Your task to perform on an android device: What's the weather today? Image 0: 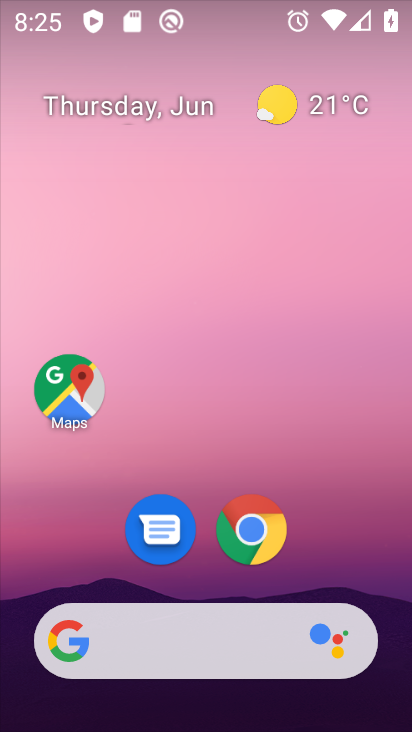
Step 0: click (314, 107)
Your task to perform on an android device: What's the weather today? Image 1: 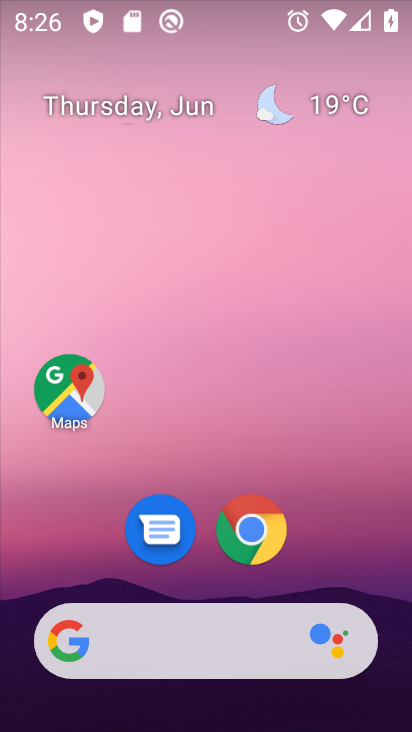
Step 1: drag from (1, 243) to (358, 285)
Your task to perform on an android device: What's the weather today? Image 2: 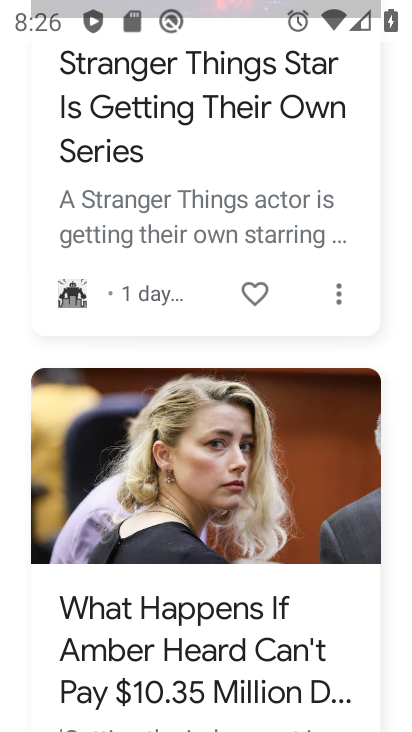
Step 2: drag from (302, 95) to (351, 680)
Your task to perform on an android device: What's the weather today? Image 3: 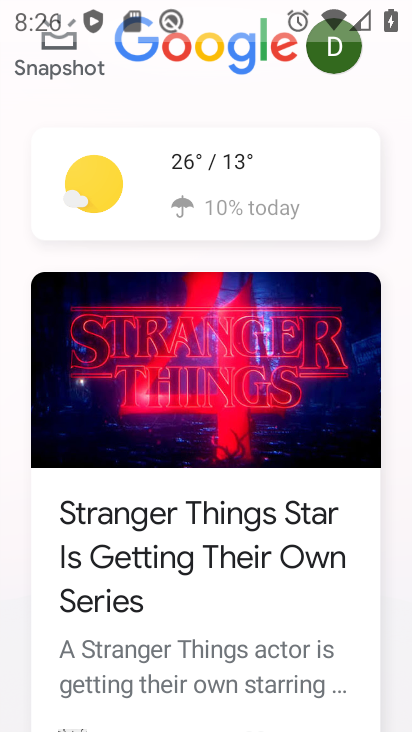
Step 3: click (235, 159)
Your task to perform on an android device: What's the weather today? Image 4: 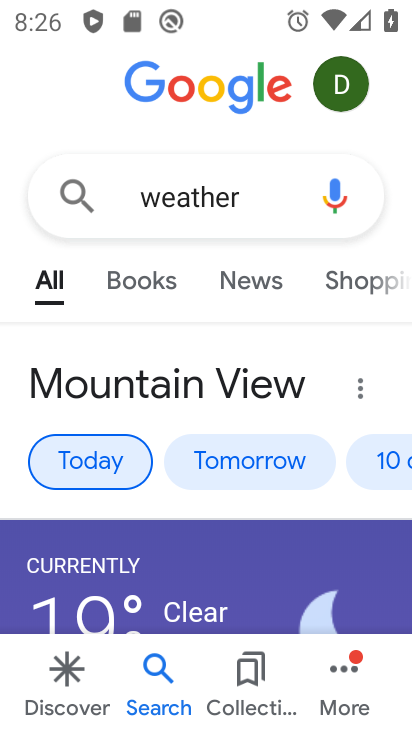
Step 4: drag from (264, 578) to (258, 365)
Your task to perform on an android device: What's the weather today? Image 5: 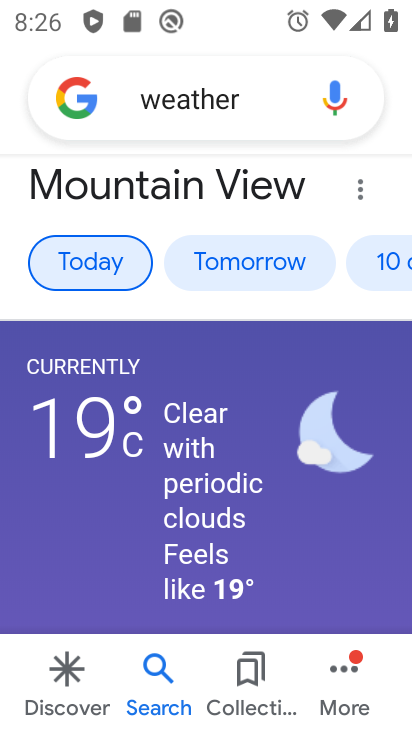
Step 5: click (111, 258)
Your task to perform on an android device: What's the weather today? Image 6: 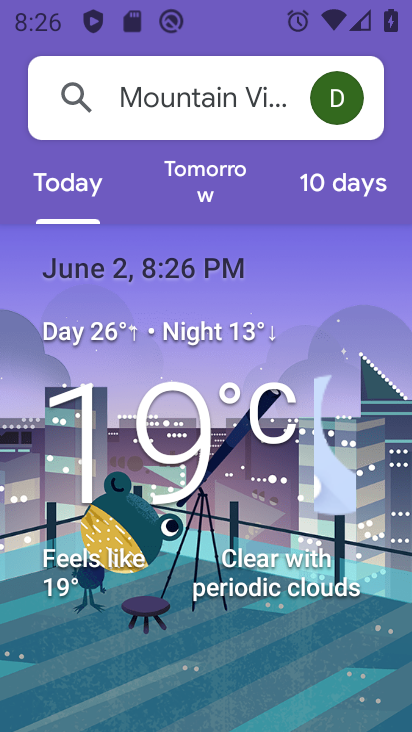
Step 6: task complete